Your task to perform on an android device: View the shopping cart on target. Image 0: 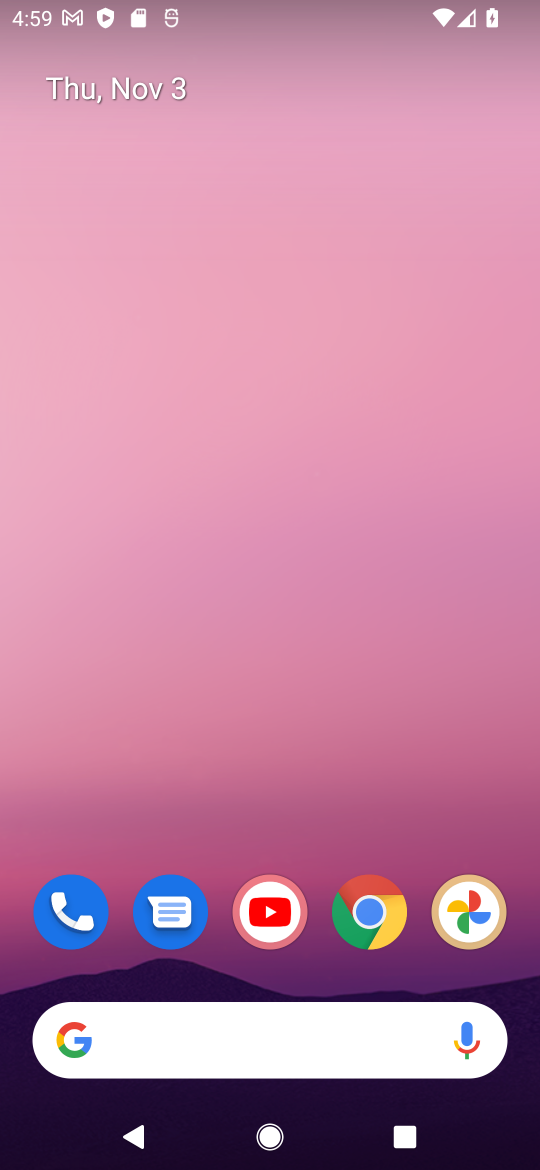
Step 0: click (381, 906)
Your task to perform on an android device: View the shopping cart on target. Image 1: 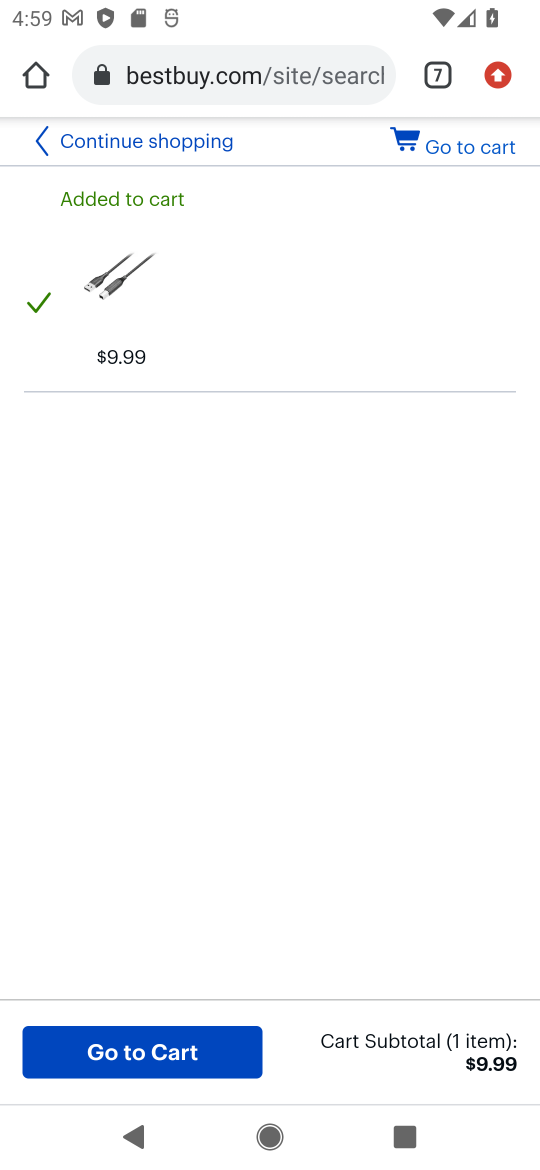
Step 1: click (433, 69)
Your task to perform on an android device: View the shopping cart on target. Image 2: 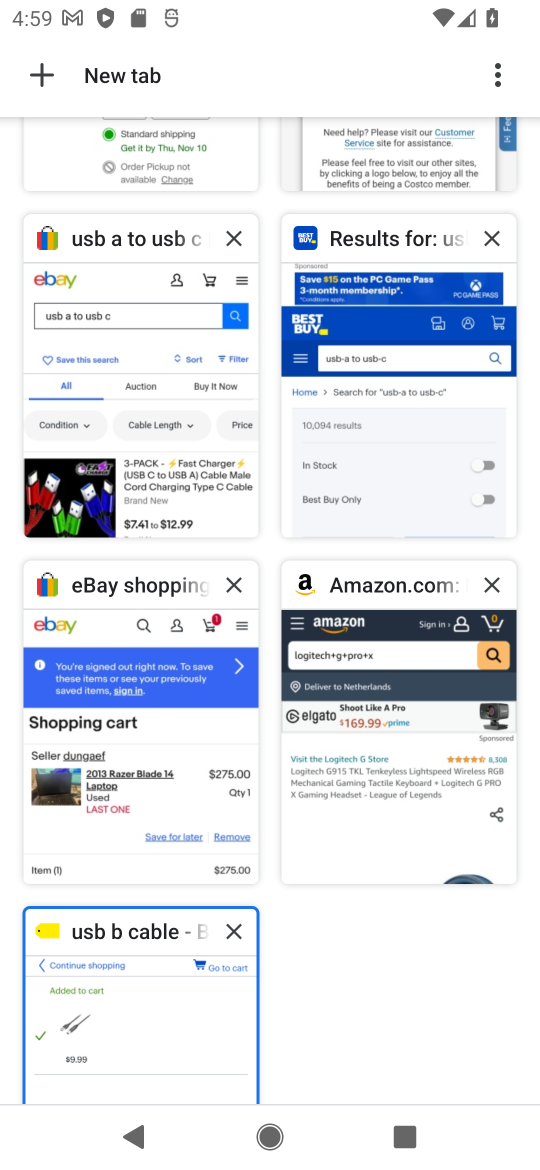
Step 2: click (37, 64)
Your task to perform on an android device: View the shopping cart on target. Image 3: 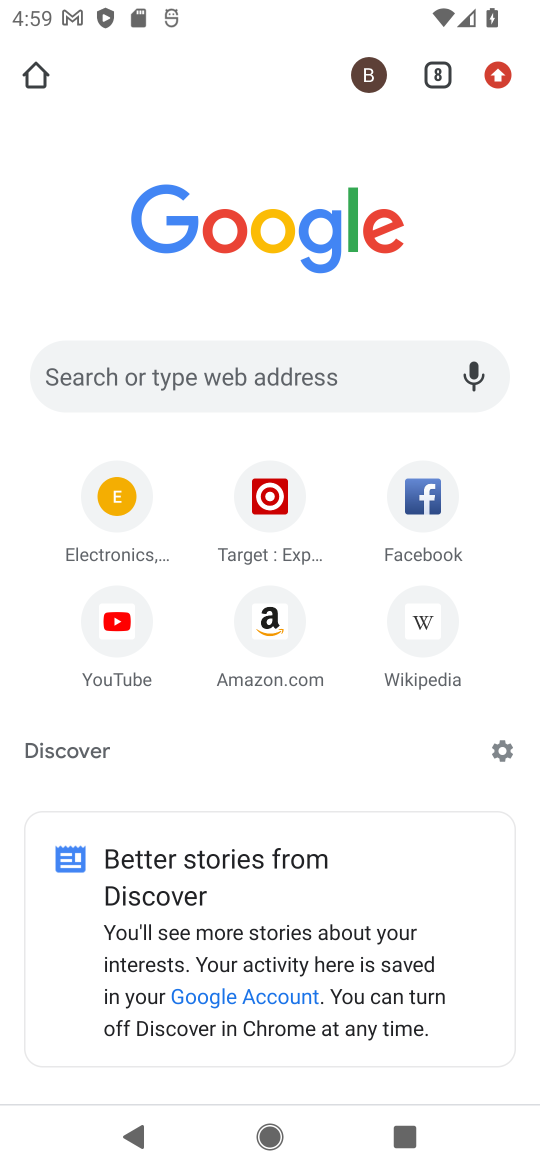
Step 3: click (217, 366)
Your task to perform on an android device: View the shopping cart on target. Image 4: 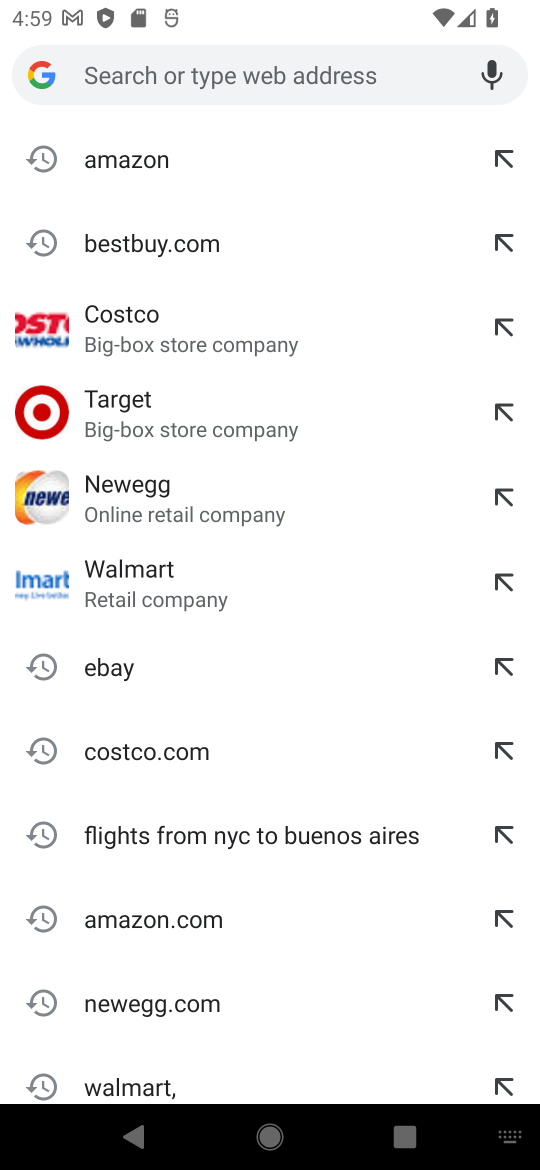
Step 4: type "target"
Your task to perform on an android device: View the shopping cart on target. Image 5: 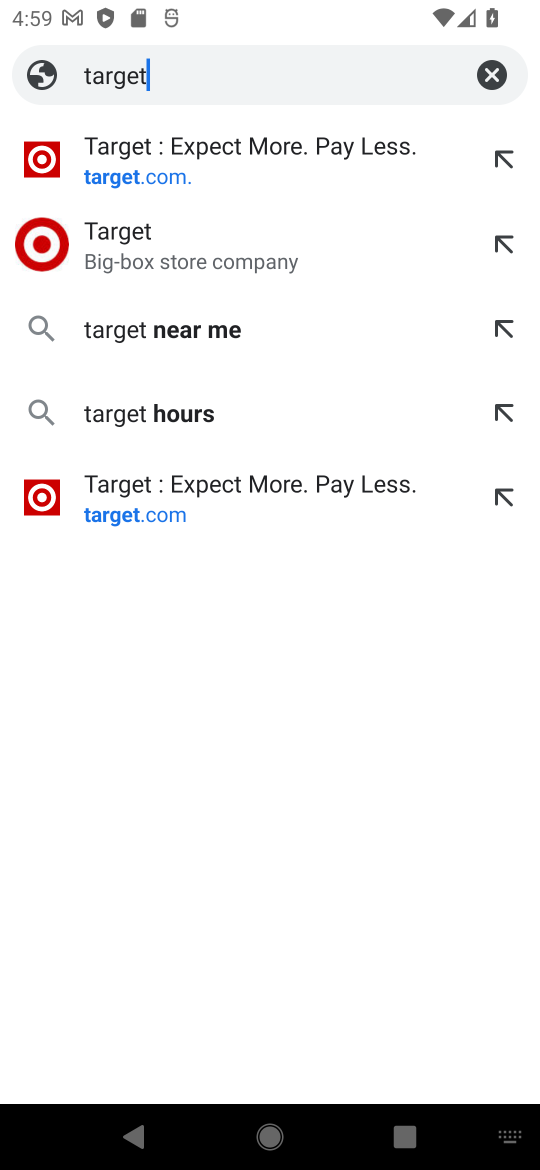
Step 5: click (174, 160)
Your task to perform on an android device: View the shopping cart on target. Image 6: 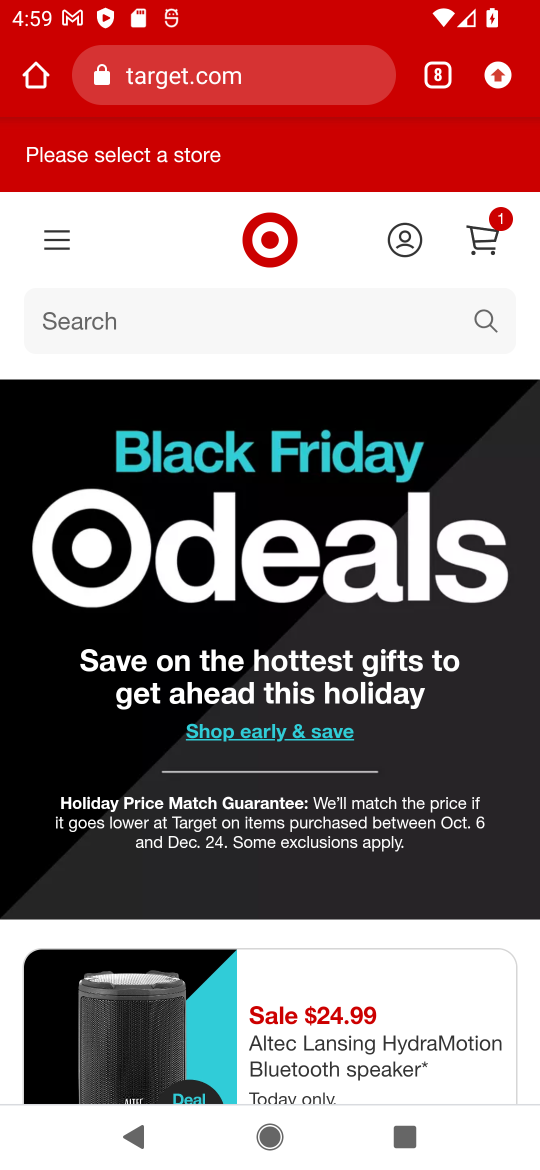
Step 6: task complete